Your task to perform on an android device: Go to location settings Image 0: 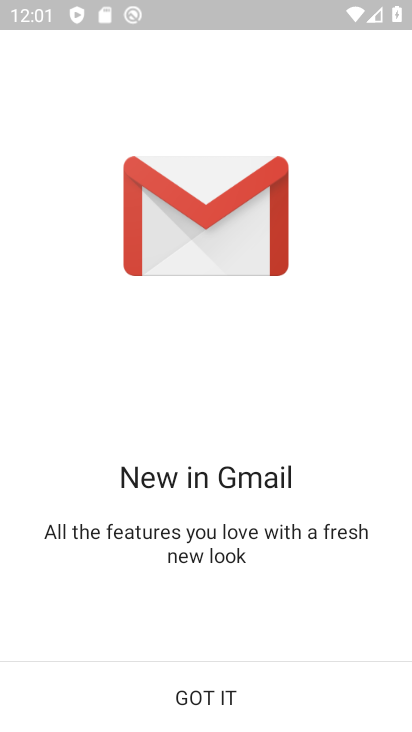
Step 0: press home button
Your task to perform on an android device: Go to location settings Image 1: 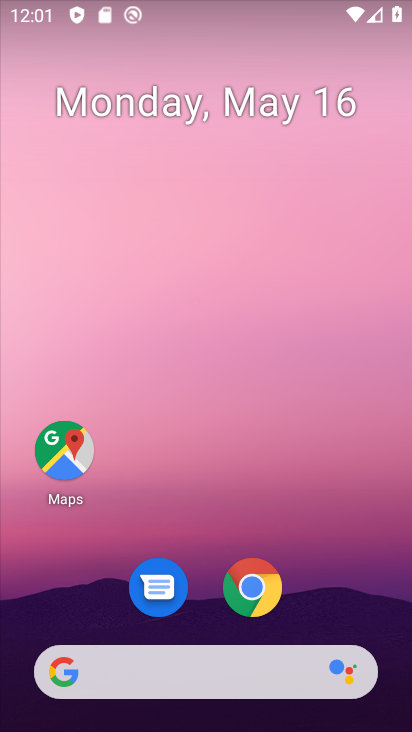
Step 1: drag from (182, 6) to (191, 418)
Your task to perform on an android device: Go to location settings Image 2: 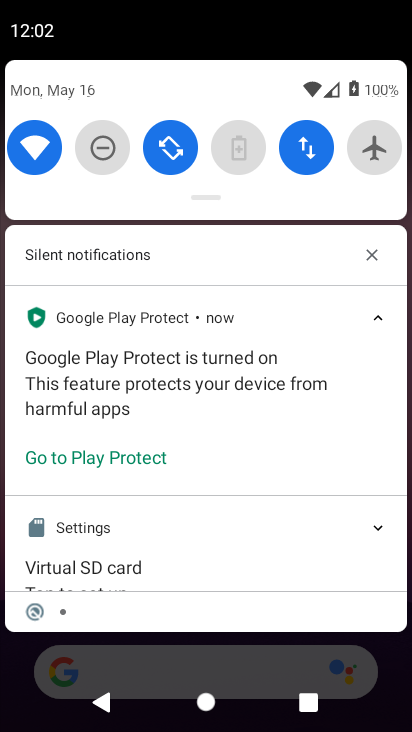
Step 2: click (381, 664)
Your task to perform on an android device: Go to location settings Image 3: 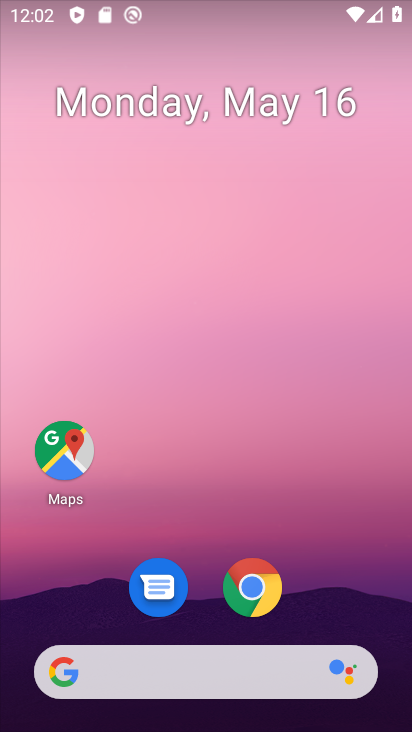
Step 3: drag from (300, 593) to (305, 75)
Your task to perform on an android device: Go to location settings Image 4: 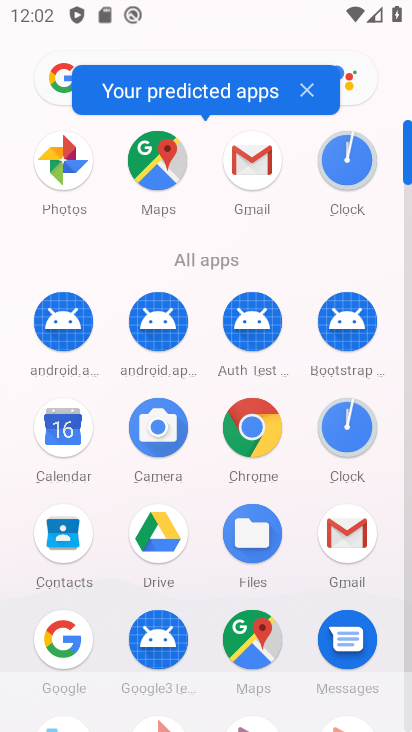
Step 4: drag from (298, 254) to (316, 5)
Your task to perform on an android device: Go to location settings Image 5: 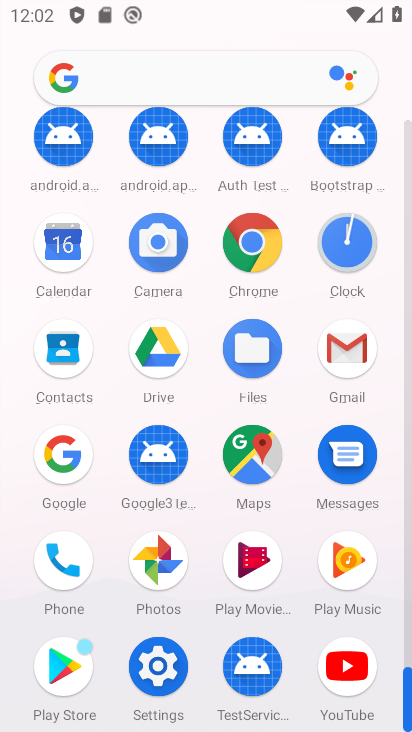
Step 5: click (156, 663)
Your task to perform on an android device: Go to location settings Image 6: 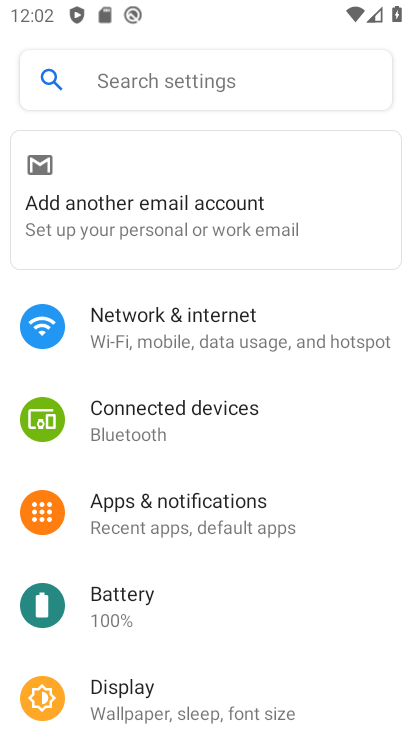
Step 6: drag from (268, 637) to (297, 256)
Your task to perform on an android device: Go to location settings Image 7: 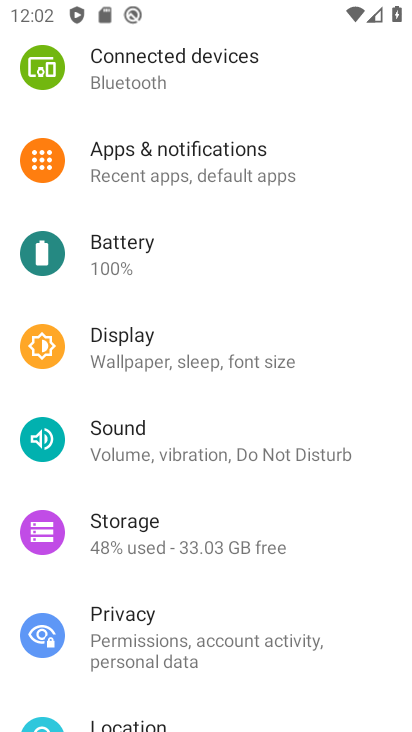
Step 7: drag from (307, 609) to (288, 310)
Your task to perform on an android device: Go to location settings Image 8: 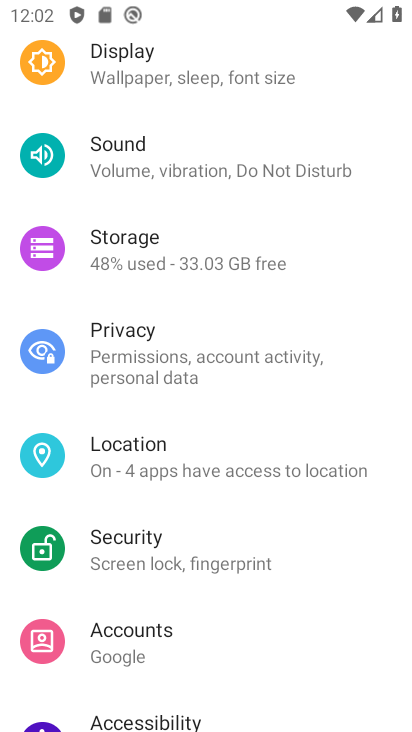
Step 8: click (143, 461)
Your task to perform on an android device: Go to location settings Image 9: 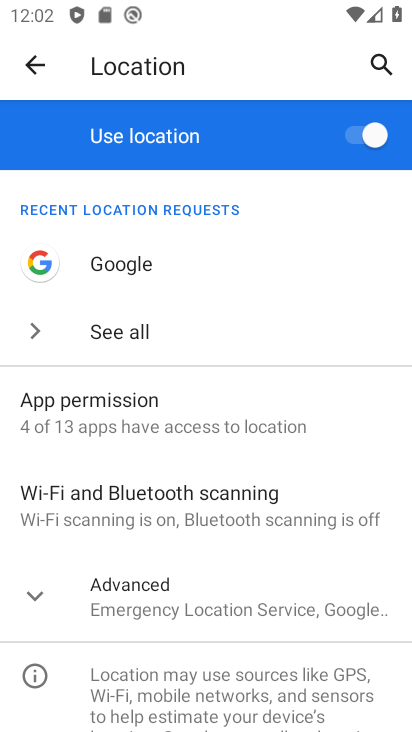
Step 9: task complete